Your task to perform on an android device: turn on the 24-hour format for clock Image 0: 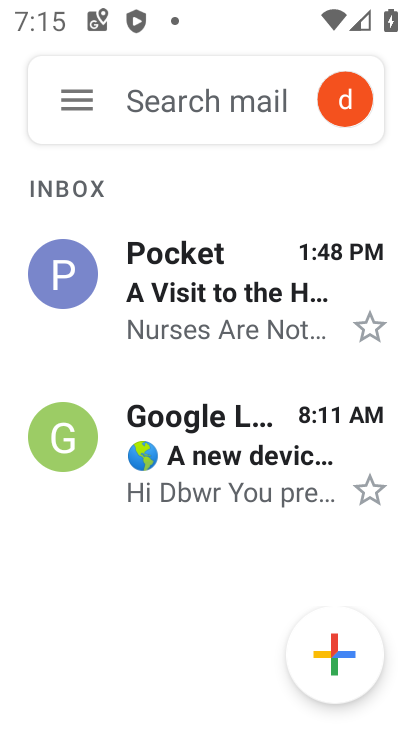
Step 0: press home button
Your task to perform on an android device: turn on the 24-hour format for clock Image 1: 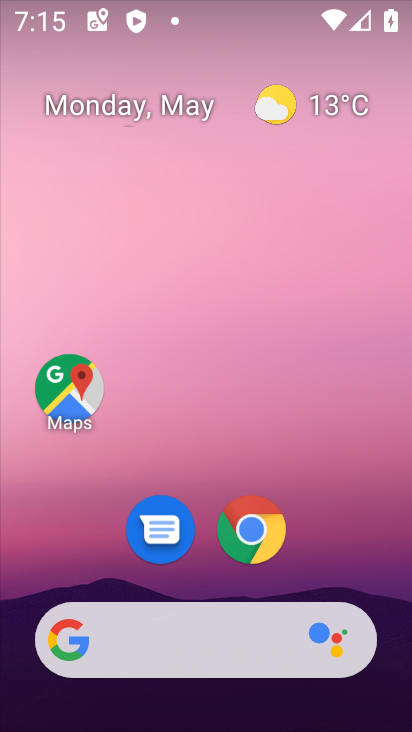
Step 1: drag from (250, 665) to (284, 191)
Your task to perform on an android device: turn on the 24-hour format for clock Image 2: 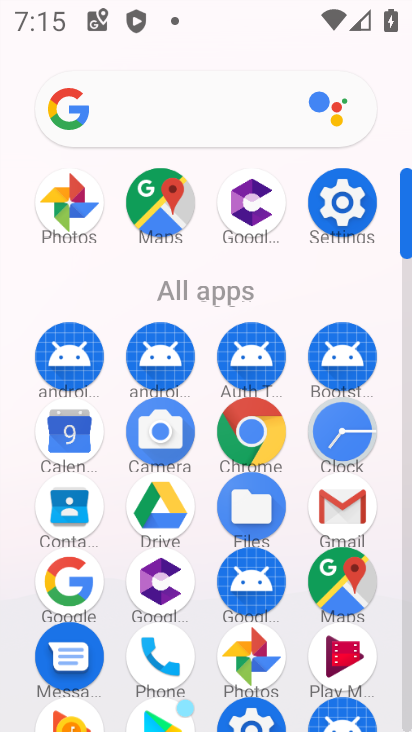
Step 2: click (350, 431)
Your task to perform on an android device: turn on the 24-hour format for clock Image 3: 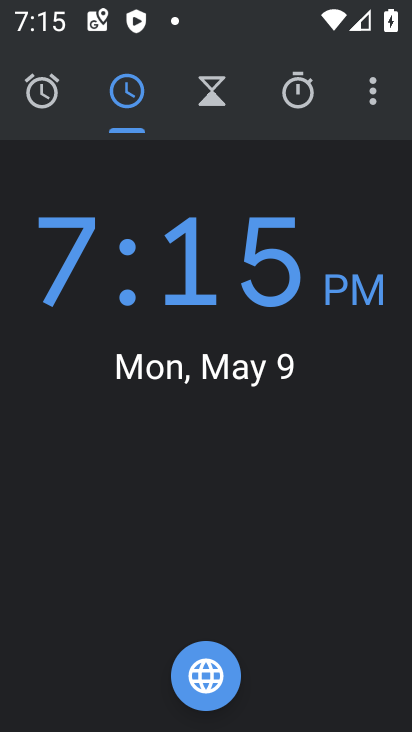
Step 3: click (372, 104)
Your task to perform on an android device: turn on the 24-hour format for clock Image 4: 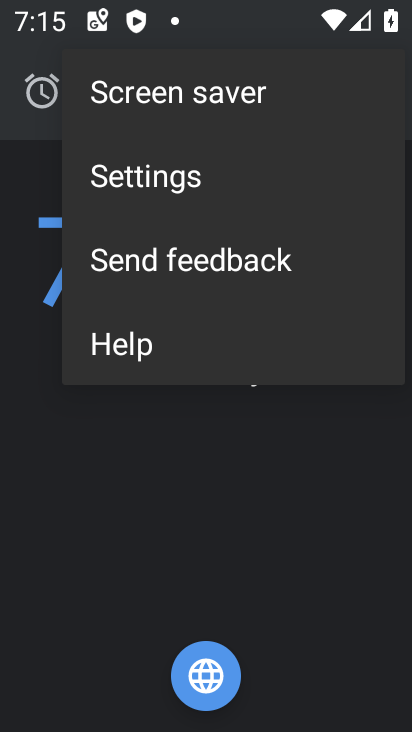
Step 4: click (224, 188)
Your task to perform on an android device: turn on the 24-hour format for clock Image 5: 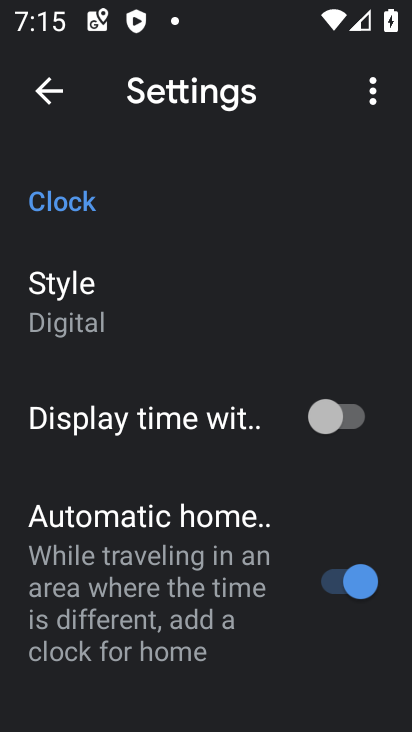
Step 5: drag from (162, 575) to (220, 341)
Your task to perform on an android device: turn on the 24-hour format for clock Image 6: 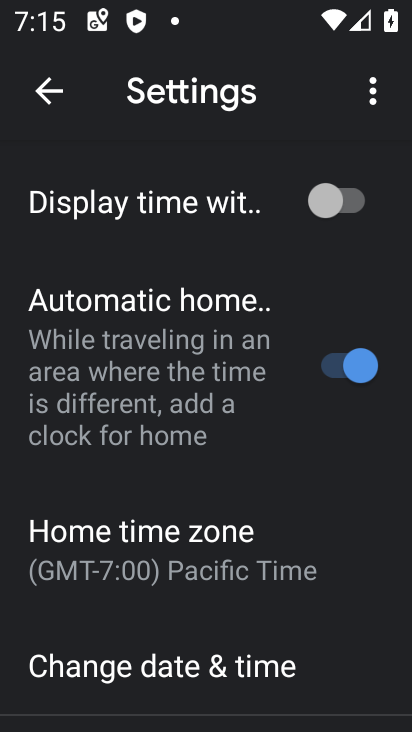
Step 6: click (197, 679)
Your task to perform on an android device: turn on the 24-hour format for clock Image 7: 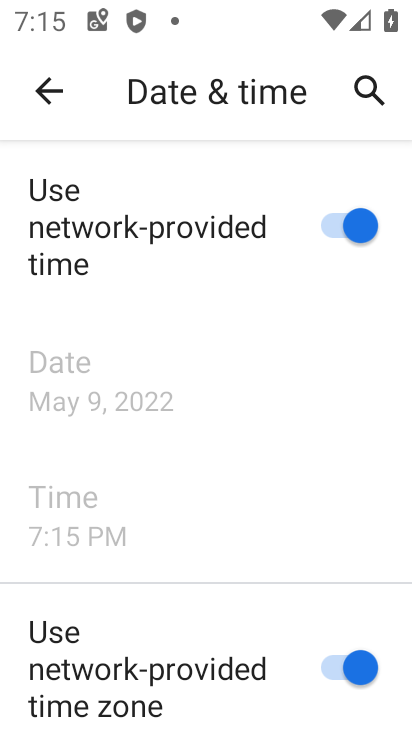
Step 7: drag from (248, 543) to (237, 350)
Your task to perform on an android device: turn on the 24-hour format for clock Image 8: 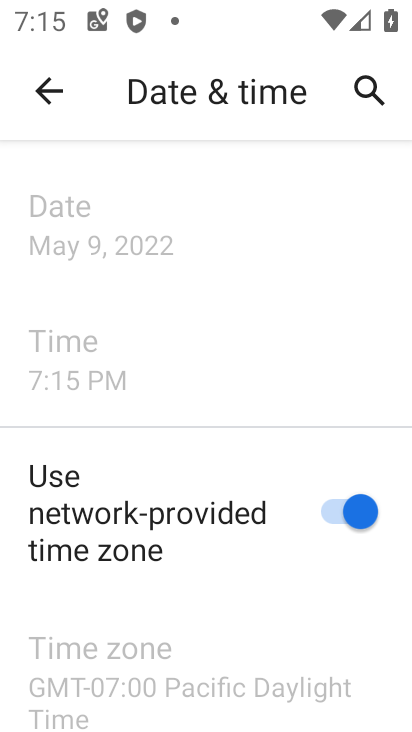
Step 8: click (353, 511)
Your task to perform on an android device: turn on the 24-hour format for clock Image 9: 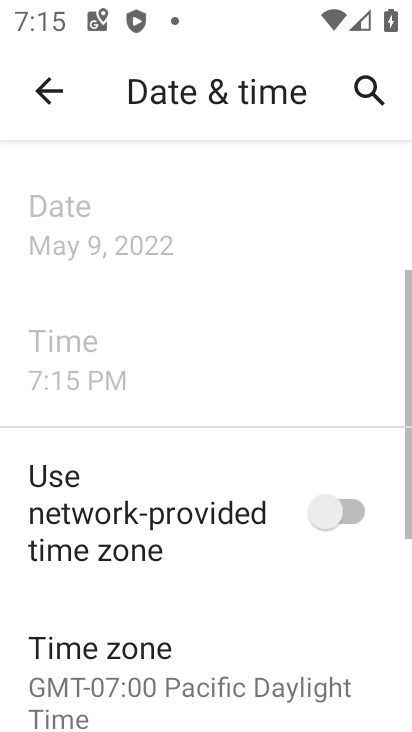
Step 9: drag from (280, 599) to (349, 237)
Your task to perform on an android device: turn on the 24-hour format for clock Image 10: 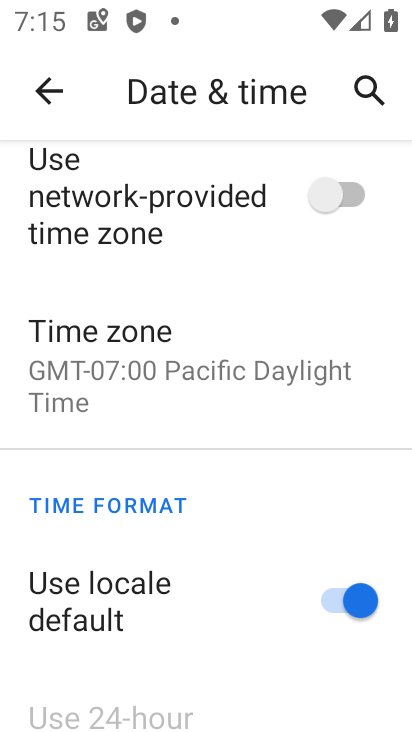
Step 10: click (349, 588)
Your task to perform on an android device: turn on the 24-hour format for clock Image 11: 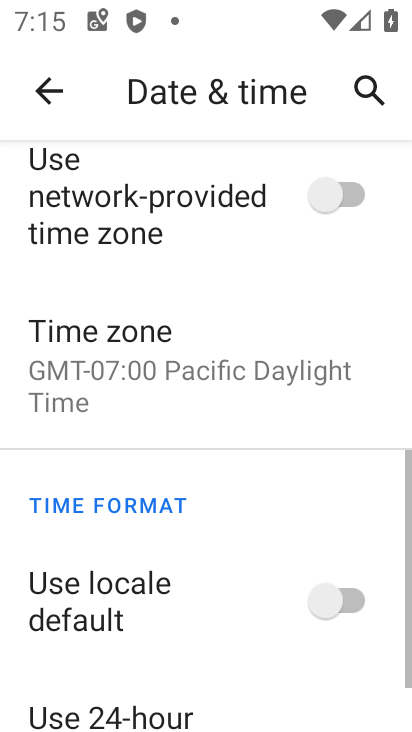
Step 11: drag from (288, 573) to (258, 418)
Your task to perform on an android device: turn on the 24-hour format for clock Image 12: 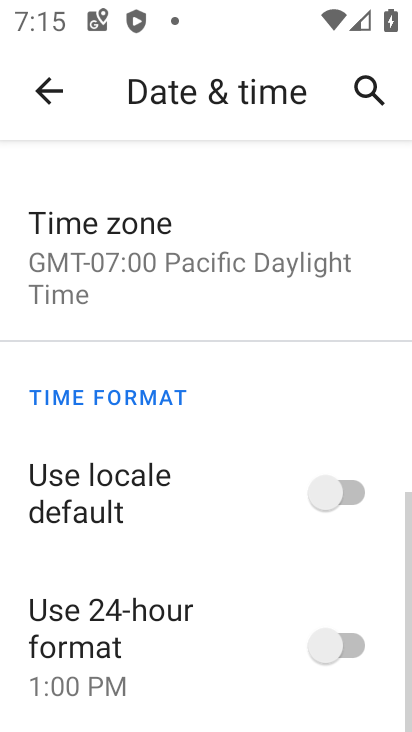
Step 12: click (330, 637)
Your task to perform on an android device: turn on the 24-hour format for clock Image 13: 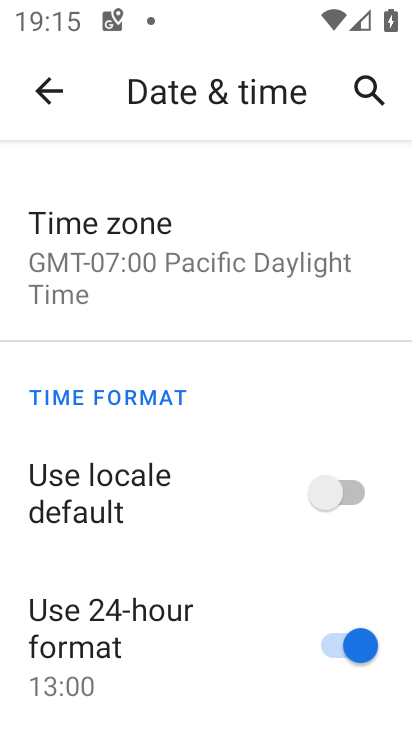
Step 13: task complete